Your task to perform on an android device: Show me recent news Image 0: 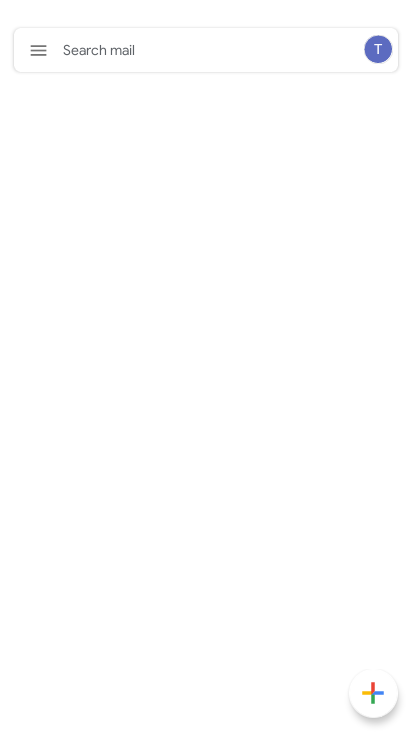
Step 0: press home button
Your task to perform on an android device: Show me recent news Image 1: 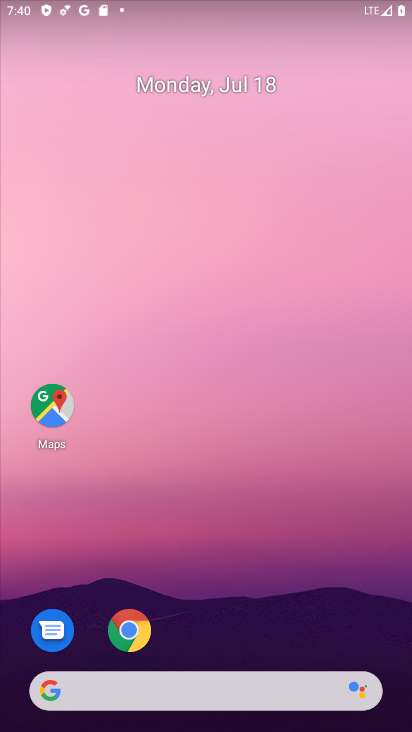
Step 1: drag from (235, 690) to (226, 1)
Your task to perform on an android device: Show me recent news Image 2: 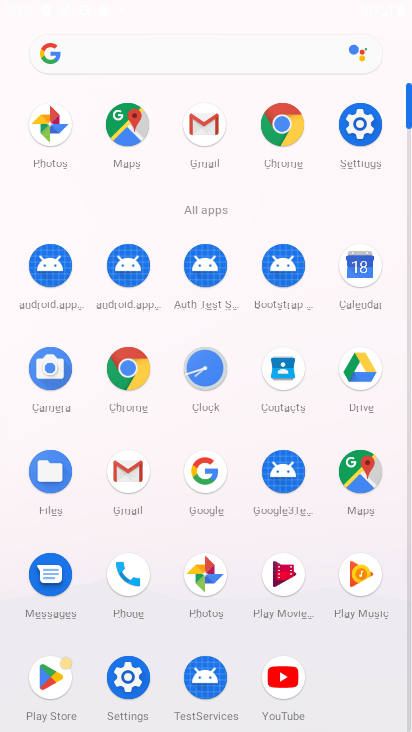
Step 2: click (217, 513)
Your task to perform on an android device: Show me recent news Image 3: 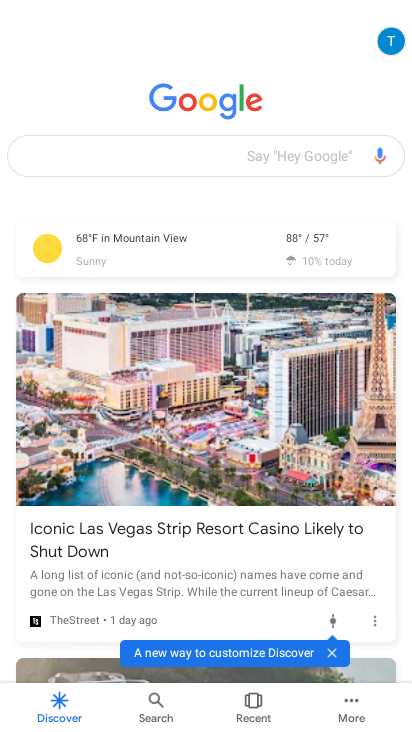
Step 3: click (193, 162)
Your task to perform on an android device: Show me recent news Image 4: 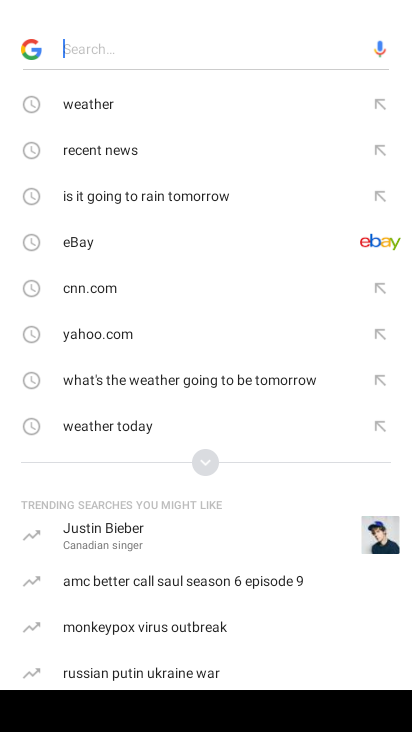
Step 4: click (136, 140)
Your task to perform on an android device: Show me recent news Image 5: 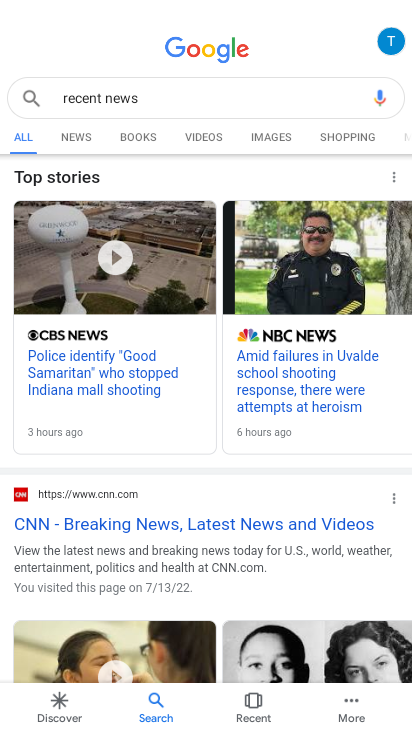
Step 5: click (88, 141)
Your task to perform on an android device: Show me recent news Image 6: 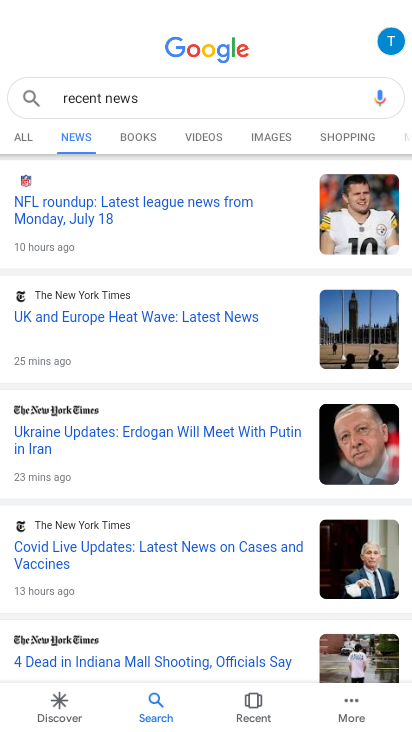
Step 6: task complete